Your task to perform on an android device: Go to notification settings Image 0: 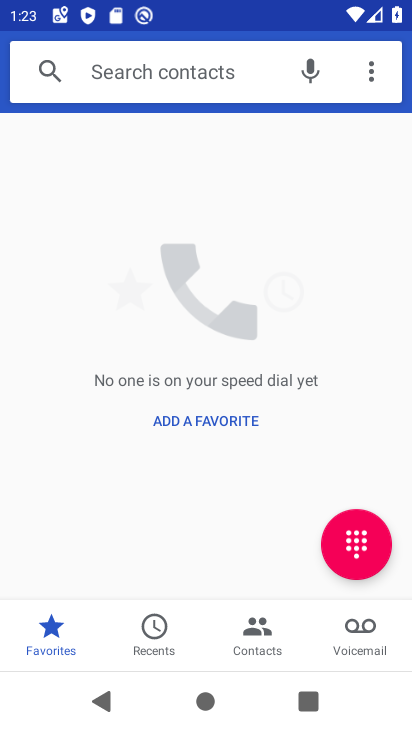
Step 0: press home button
Your task to perform on an android device: Go to notification settings Image 1: 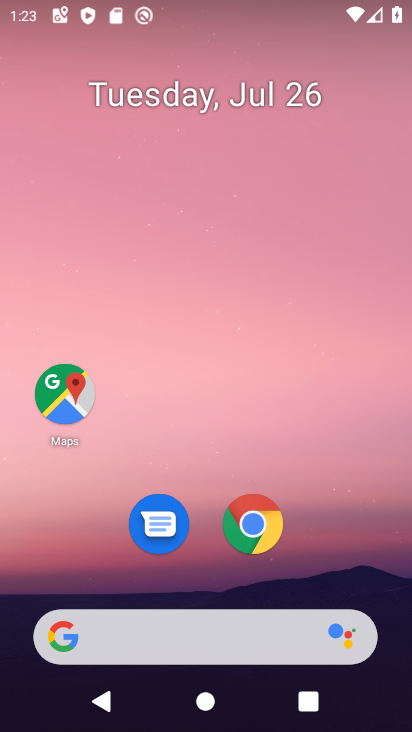
Step 1: drag from (234, 404) to (314, 87)
Your task to perform on an android device: Go to notification settings Image 2: 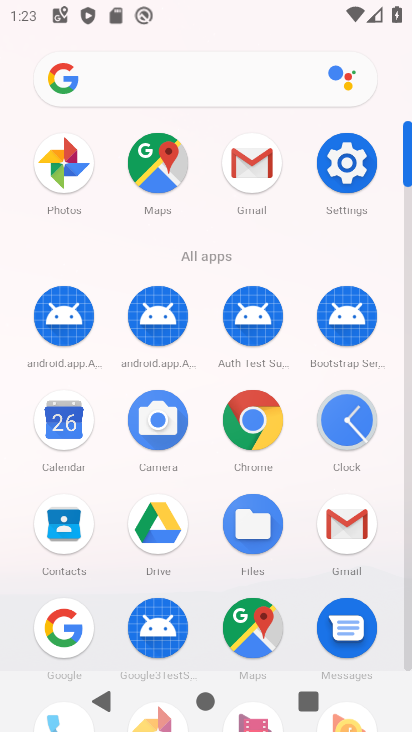
Step 2: click (349, 163)
Your task to perform on an android device: Go to notification settings Image 3: 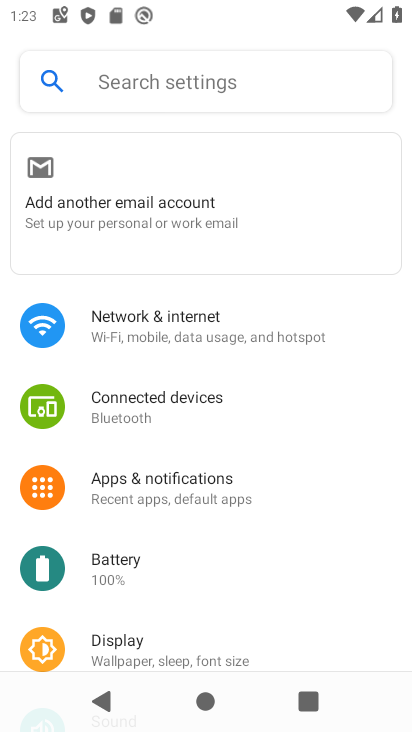
Step 3: click (157, 479)
Your task to perform on an android device: Go to notification settings Image 4: 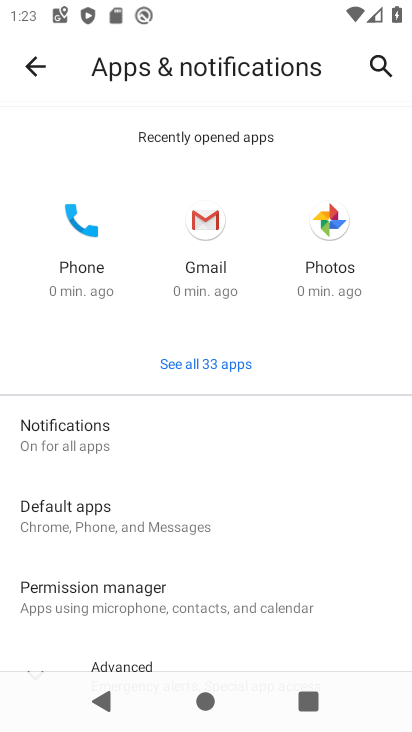
Step 4: click (53, 439)
Your task to perform on an android device: Go to notification settings Image 5: 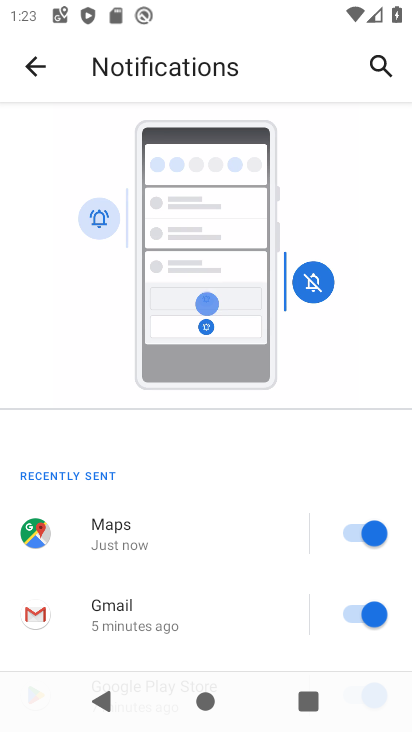
Step 5: task complete